Your task to perform on an android device: turn on translation in the chrome app Image 0: 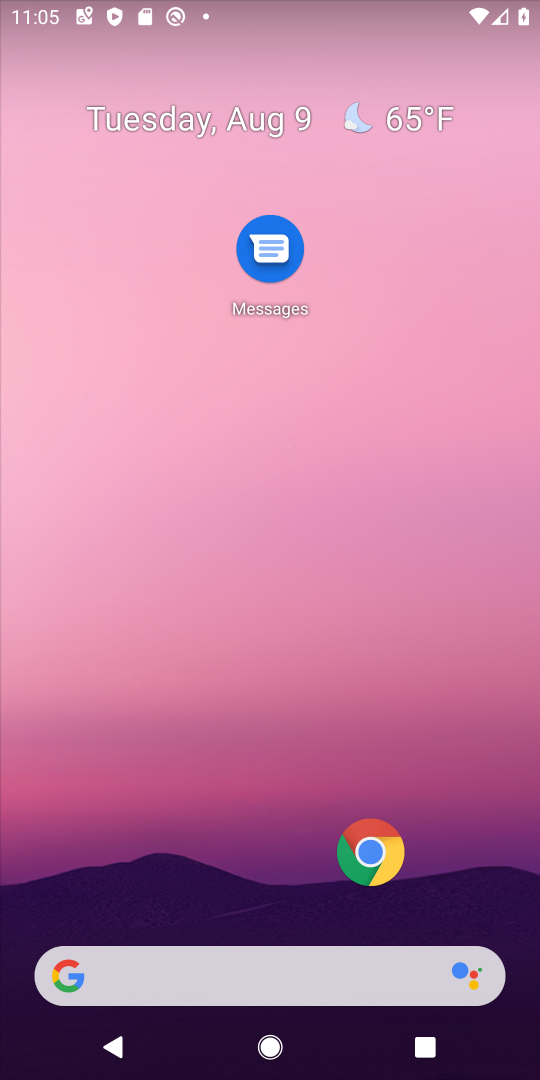
Step 0: click (391, 837)
Your task to perform on an android device: turn on translation in the chrome app Image 1: 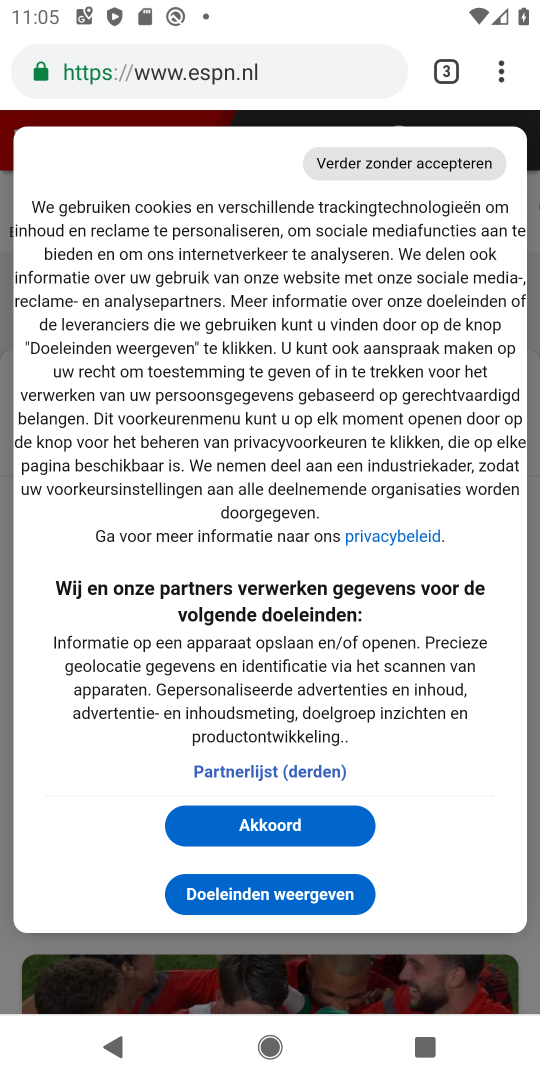
Step 1: click (507, 70)
Your task to perform on an android device: turn on translation in the chrome app Image 2: 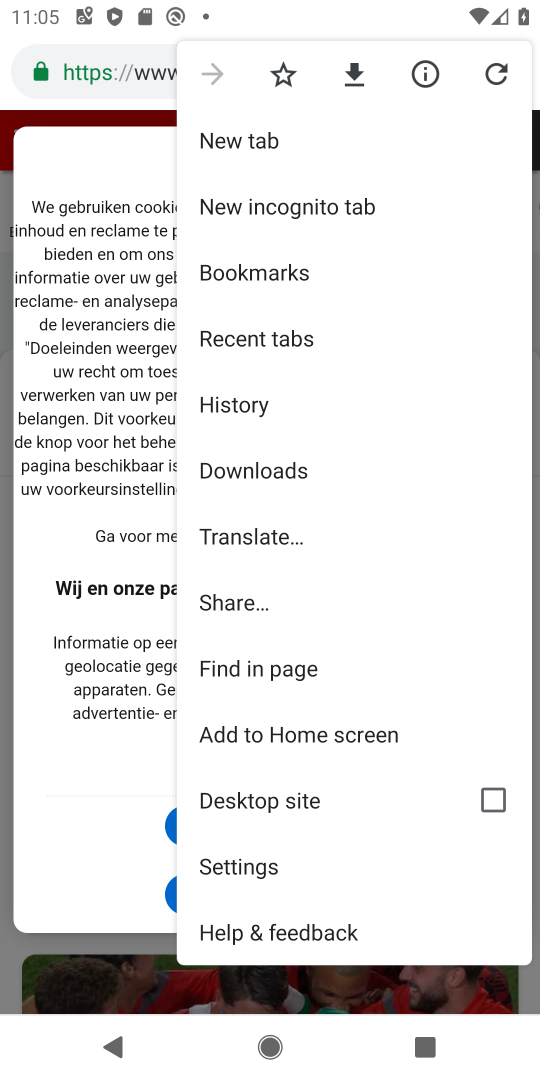
Step 2: click (299, 862)
Your task to perform on an android device: turn on translation in the chrome app Image 3: 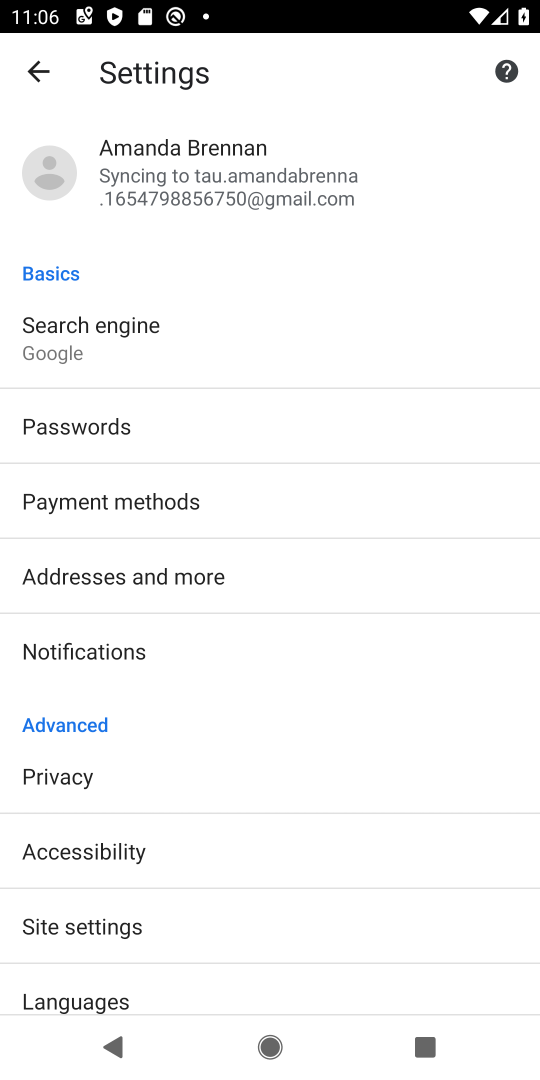
Step 3: click (224, 974)
Your task to perform on an android device: turn on translation in the chrome app Image 4: 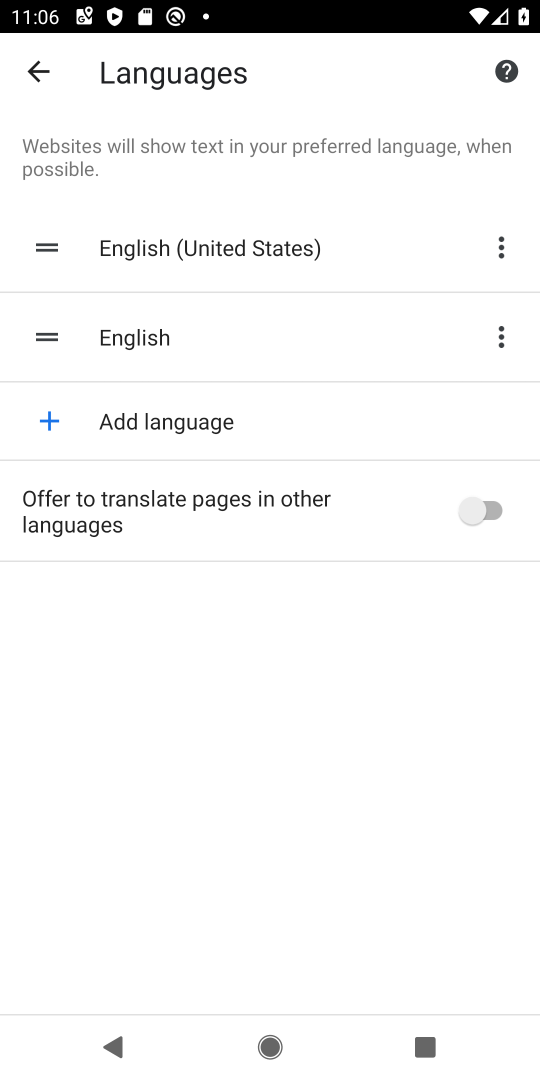
Step 4: click (495, 508)
Your task to perform on an android device: turn on translation in the chrome app Image 5: 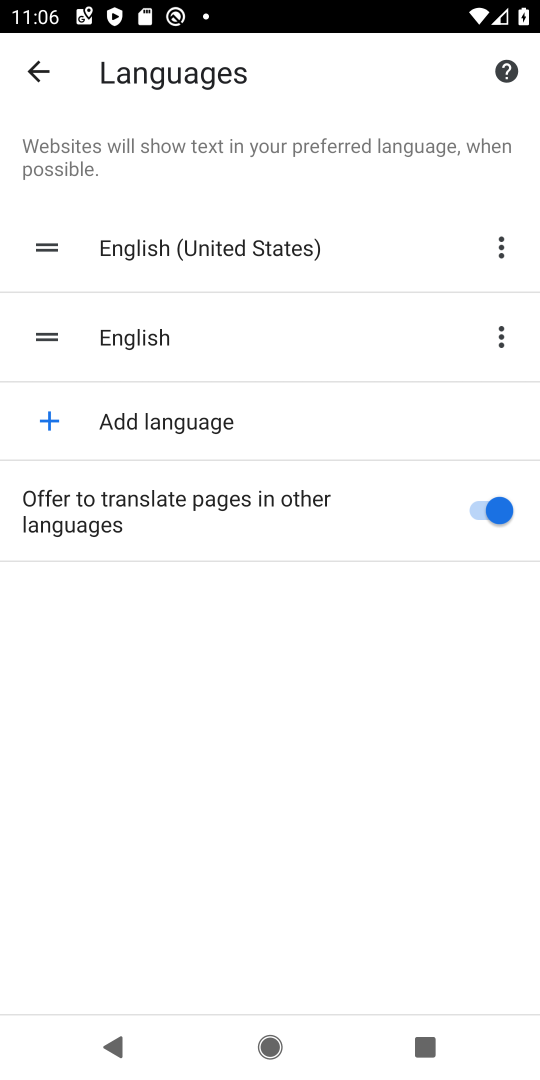
Step 5: task complete